Your task to perform on an android device: change timer sound Image 0: 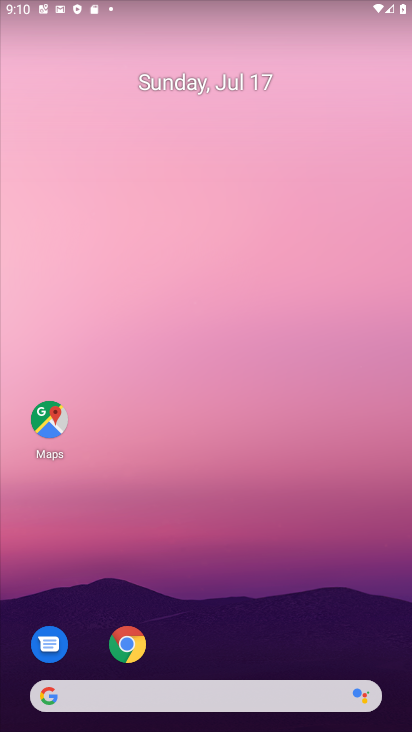
Step 0: drag from (203, 659) to (260, 136)
Your task to perform on an android device: change timer sound Image 1: 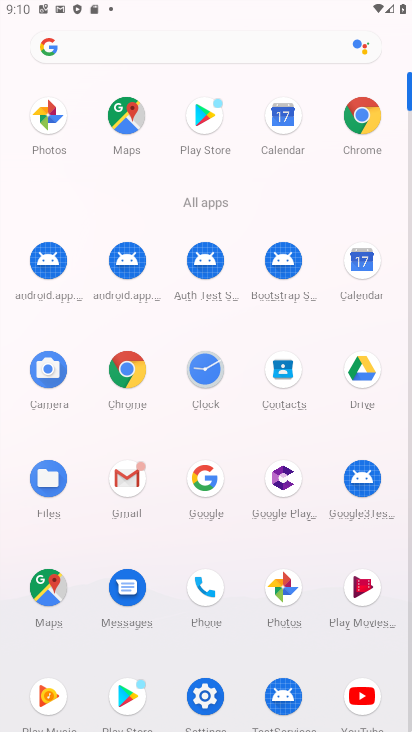
Step 1: click (205, 386)
Your task to perform on an android device: change timer sound Image 2: 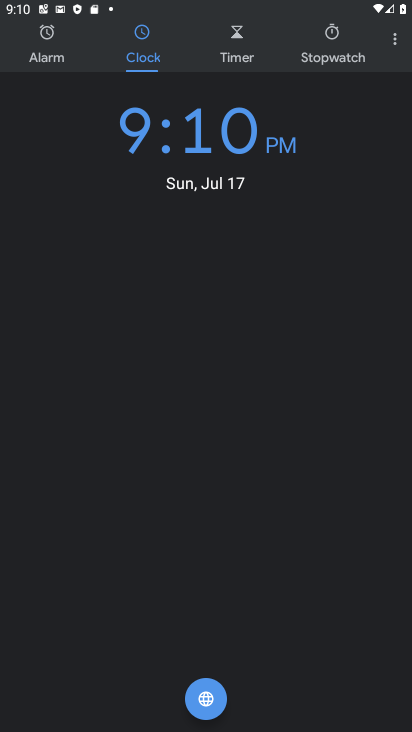
Step 2: click (391, 45)
Your task to perform on an android device: change timer sound Image 3: 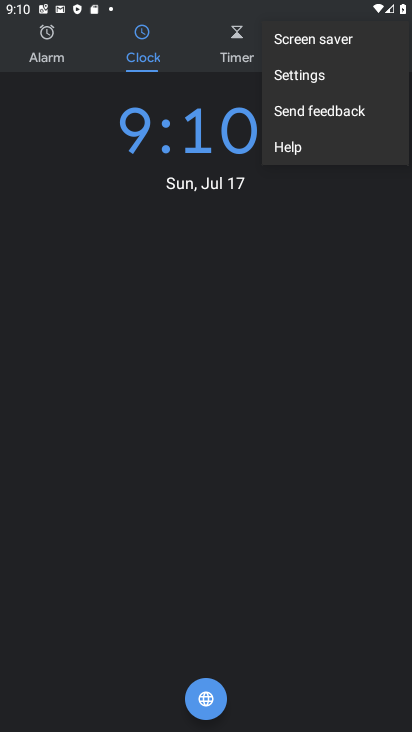
Step 3: click (313, 67)
Your task to perform on an android device: change timer sound Image 4: 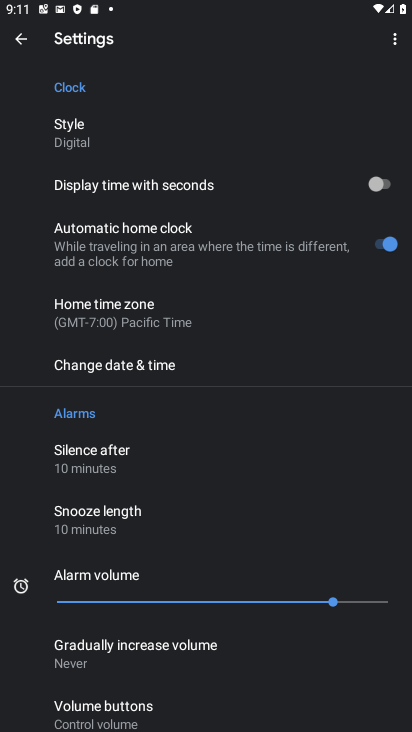
Step 4: drag from (185, 533) to (185, 410)
Your task to perform on an android device: change timer sound Image 5: 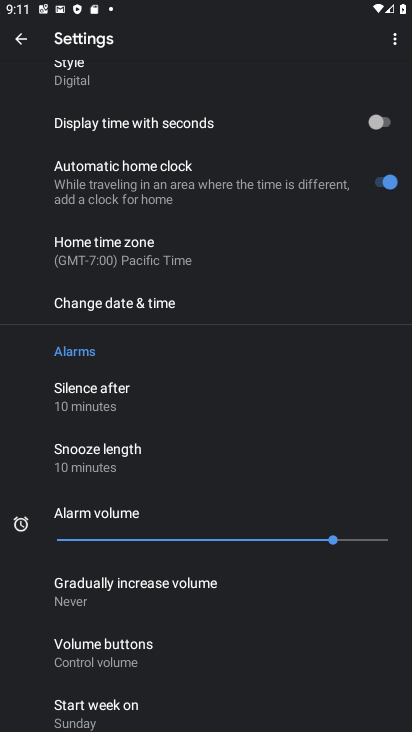
Step 5: drag from (180, 513) to (173, 110)
Your task to perform on an android device: change timer sound Image 6: 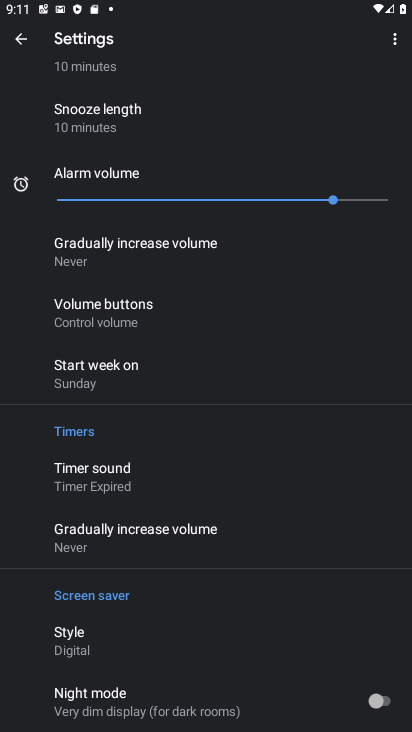
Step 6: click (112, 492)
Your task to perform on an android device: change timer sound Image 7: 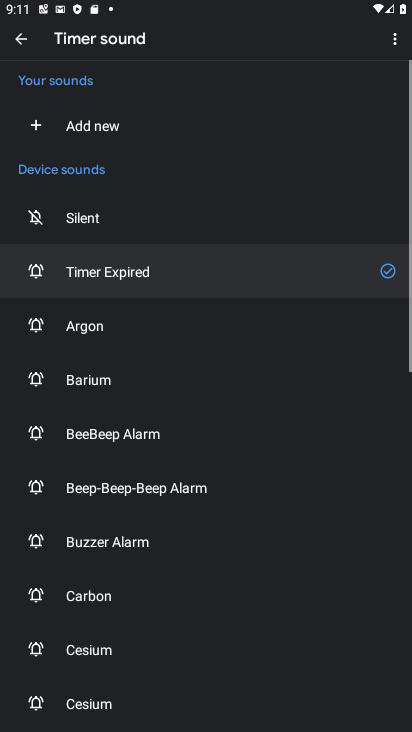
Step 7: click (98, 334)
Your task to perform on an android device: change timer sound Image 8: 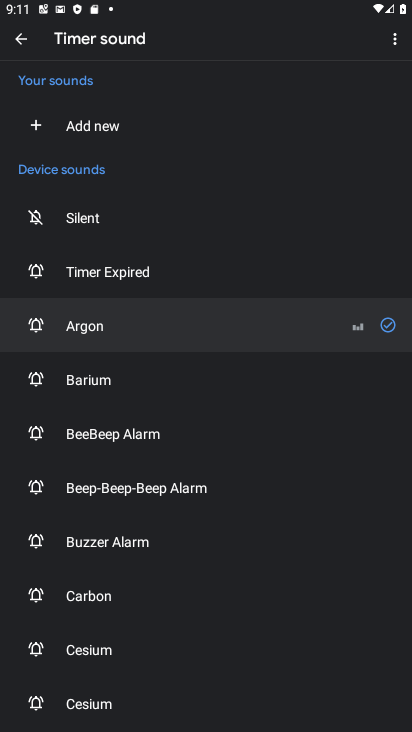
Step 8: click (105, 370)
Your task to perform on an android device: change timer sound Image 9: 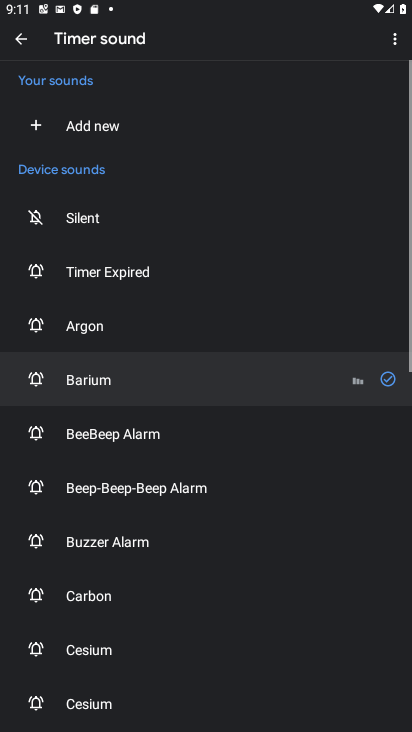
Step 9: task complete